Your task to perform on an android device: View the shopping cart on walmart.com. Search for logitech g910 on walmart.com, select the first entry, add it to the cart, then select checkout. Image 0: 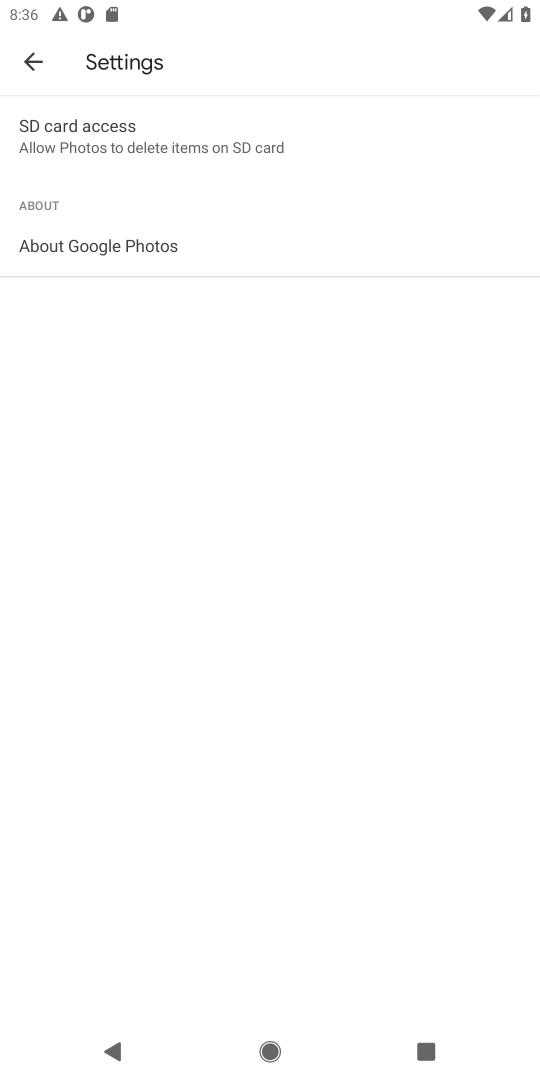
Step 0: press home button
Your task to perform on an android device: View the shopping cart on walmart.com. Search for logitech g910 on walmart.com, select the first entry, add it to the cart, then select checkout. Image 1: 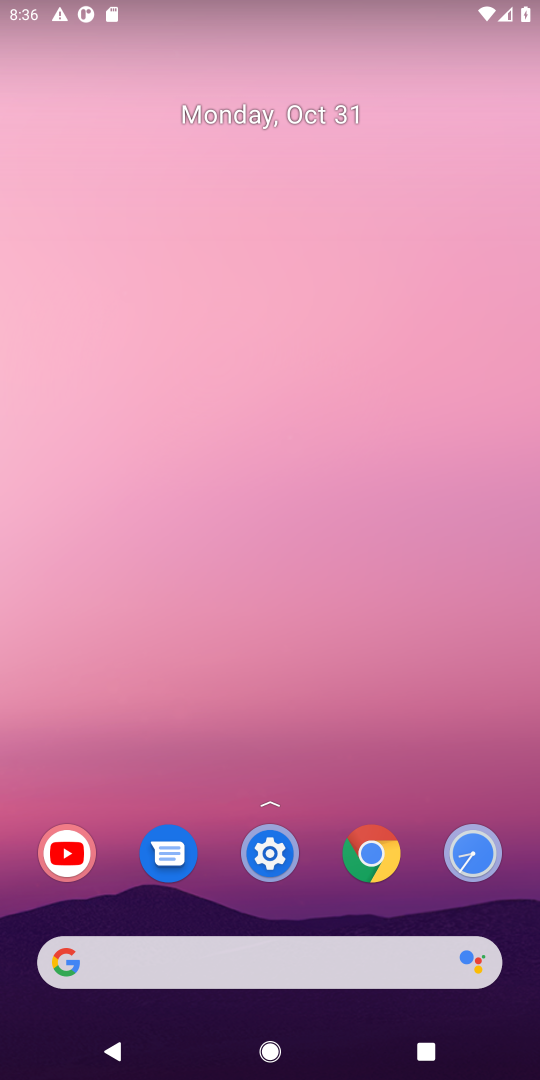
Step 1: click (225, 955)
Your task to perform on an android device: View the shopping cart on walmart.com. Search for logitech g910 on walmart.com, select the first entry, add it to the cart, then select checkout. Image 2: 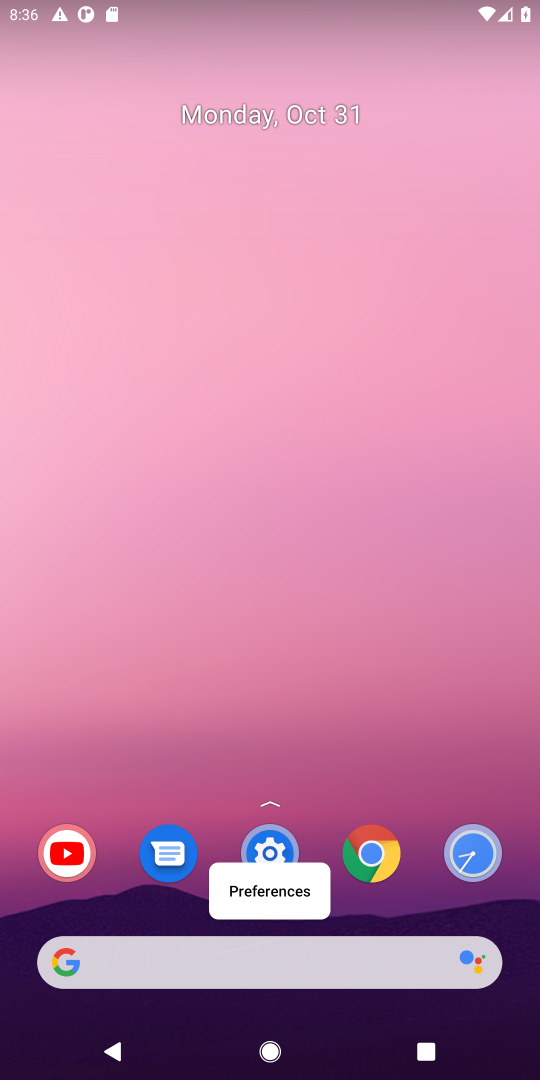
Step 2: click (211, 978)
Your task to perform on an android device: View the shopping cart on walmart.com. Search for logitech g910 on walmart.com, select the first entry, add it to the cart, then select checkout. Image 3: 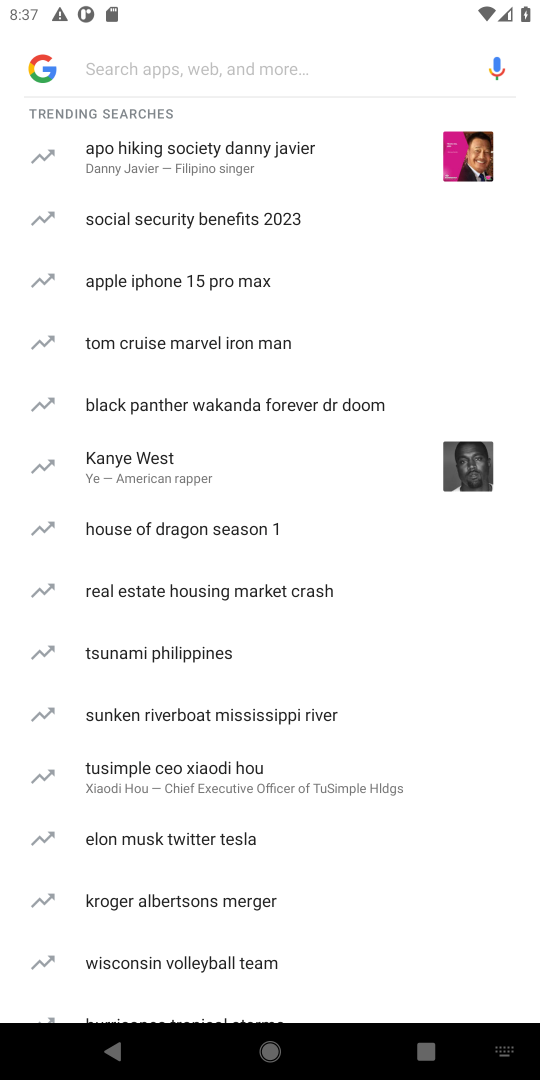
Step 3: type "walmart.com"
Your task to perform on an android device: View the shopping cart on walmart.com. Search for logitech g910 on walmart.com, select the first entry, add it to the cart, then select checkout. Image 4: 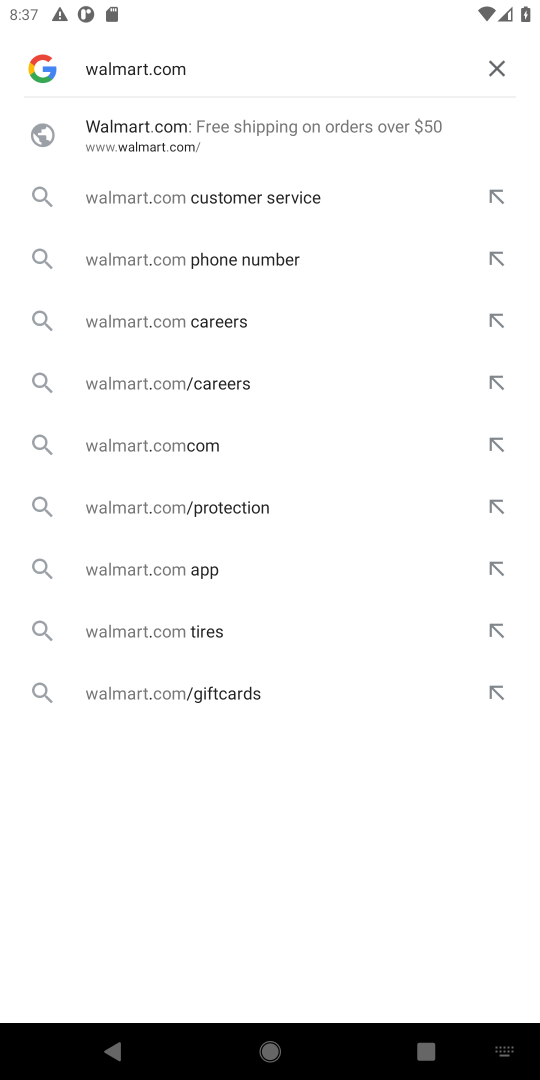
Step 4: click (116, 120)
Your task to perform on an android device: View the shopping cart on walmart.com. Search for logitech g910 on walmart.com, select the first entry, add it to the cart, then select checkout. Image 5: 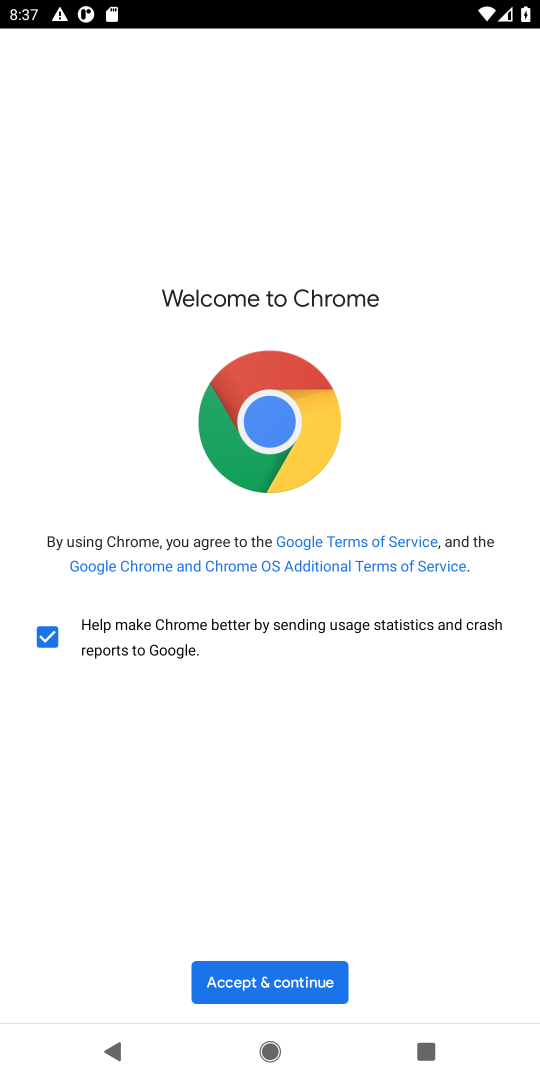
Step 5: click (272, 980)
Your task to perform on an android device: View the shopping cart on walmart.com. Search for logitech g910 on walmart.com, select the first entry, add it to the cart, then select checkout. Image 6: 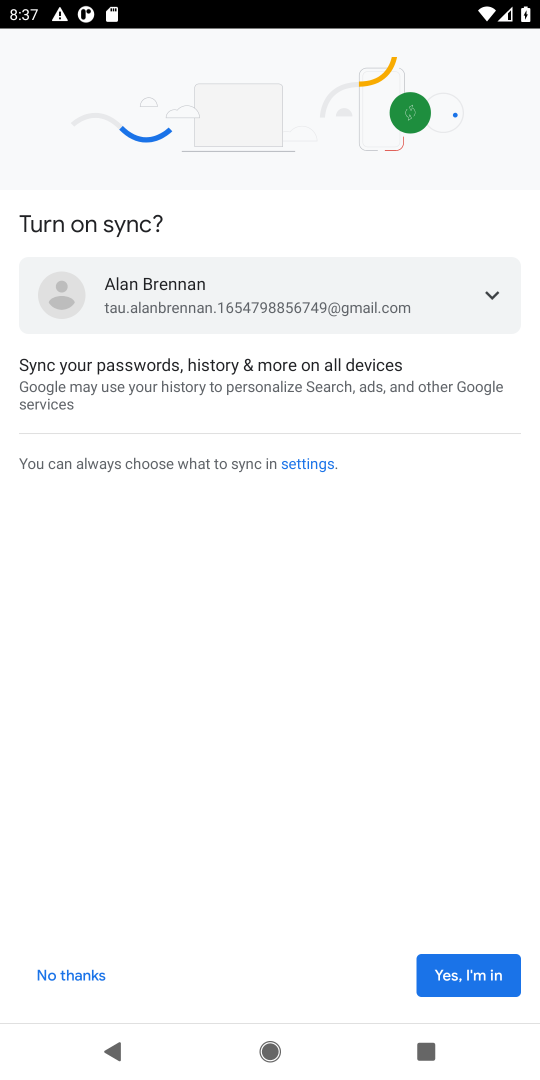
Step 6: click (444, 975)
Your task to perform on an android device: View the shopping cart on walmart.com. Search for logitech g910 on walmart.com, select the first entry, add it to the cart, then select checkout. Image 7: 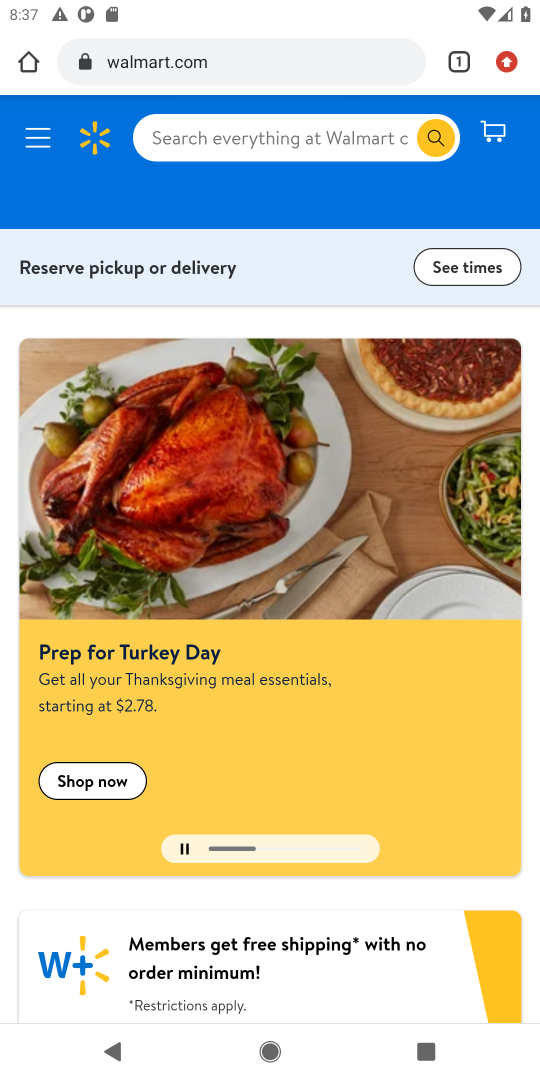
Step 7: click (226, 132)
Your task to perform on an android device: View the shopping cart on walmart.com. Search for logitech g910 on walmart.com, select the first entry, add it to the cart, then select checkout. Image 8: 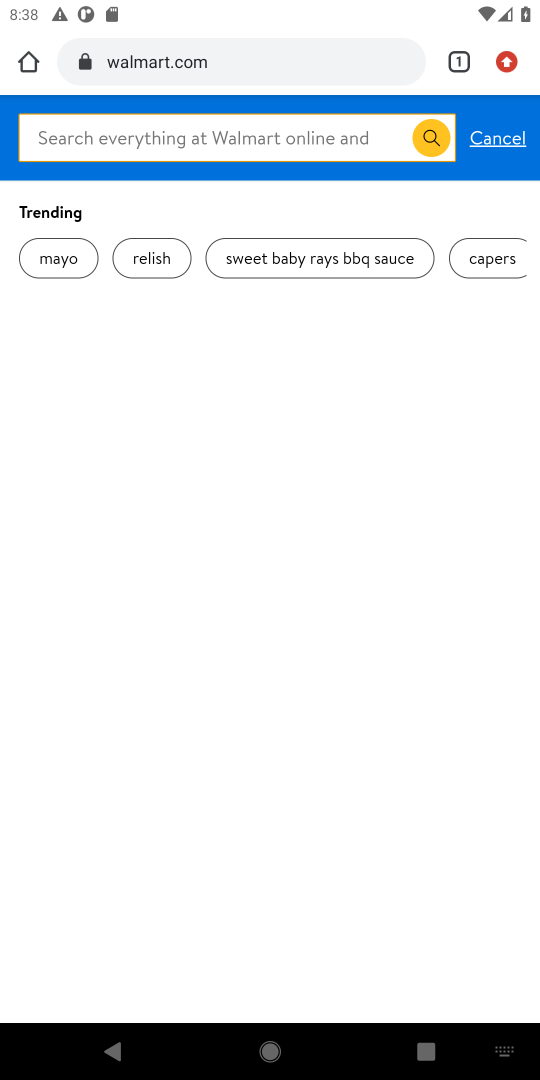
Step 8: type "logitech g910"
Your task to perform on an android device: View the shopping cart on walmart.com. Search for logitech g910 on walmart.com, select the first entry, add it to the cart, then select checkout. Image 9: 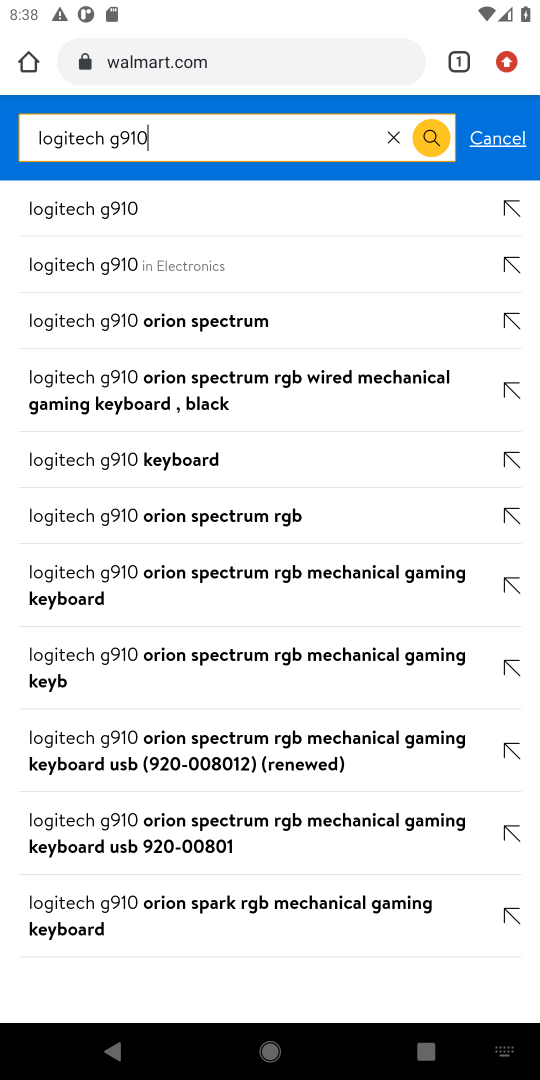
Step 9: click (126, 199)
Your task to perform on an android device: View the shopping cart on walmart.com. Search for logitech g910 on walmart.com, select the first entry, add it to the cart, then select checkout. Image 10: 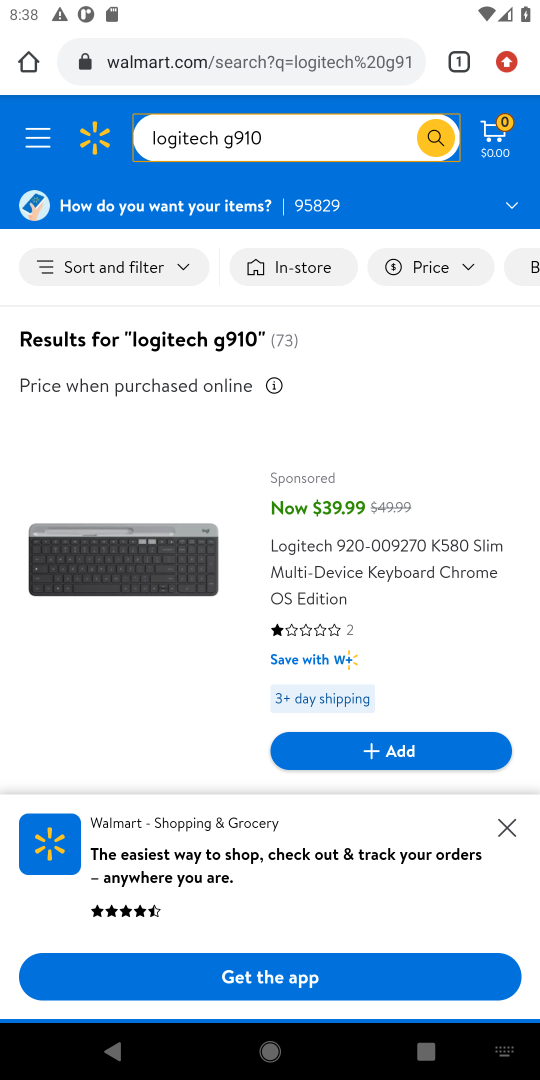
Step 10: click (504, 825)
Your task to perform on an android device: View the shopping cart on walmart.com. Search for logitech g910 on walmart.com, select the first entry, add it to the cart, then select checkout. Image 11: 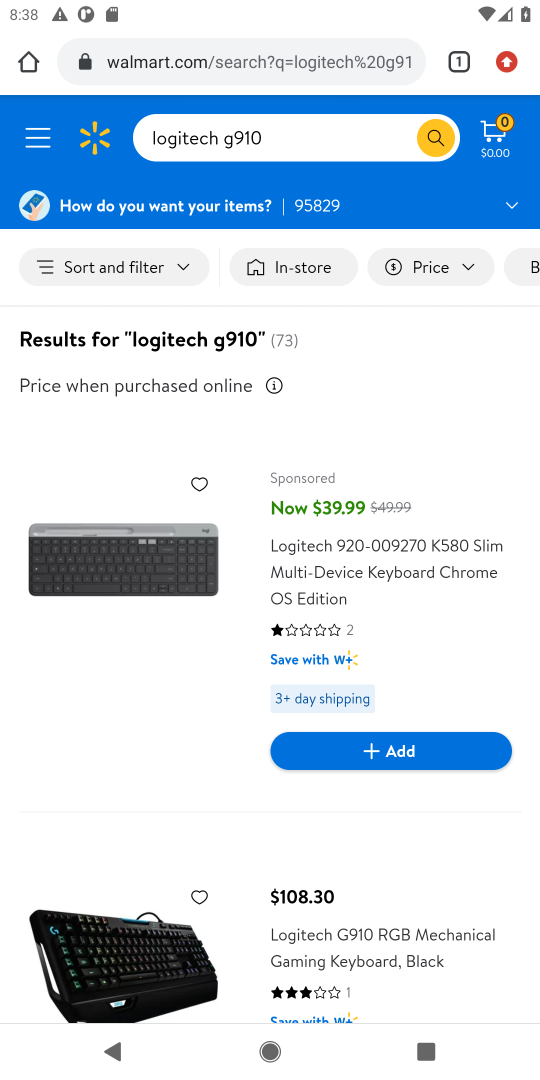
Step 11: click (411, 748)
Your task to perform on an android device: View the shopping cart on walmart.com. Search for logitech g910 on walmart.com, select the first entry, add it to the cart, then select checkout. Image 12: 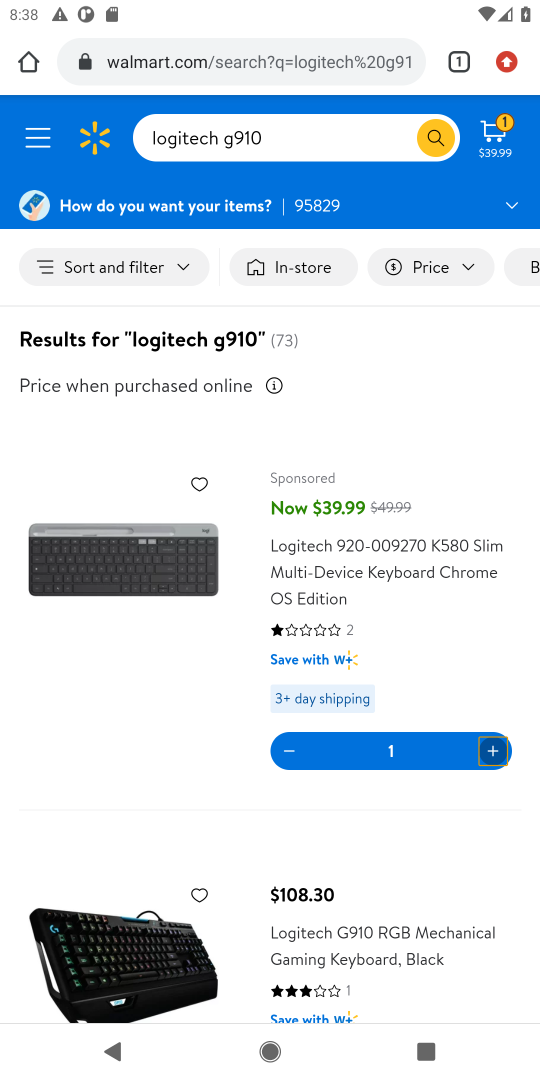
Step 12: click (491, 133)
Your task to perform on an android device: View the shopping cart on walmart.com. Search for logitech g910 on walmart.com, select the first entry, add it to the cart, then select checkout. Image 13: 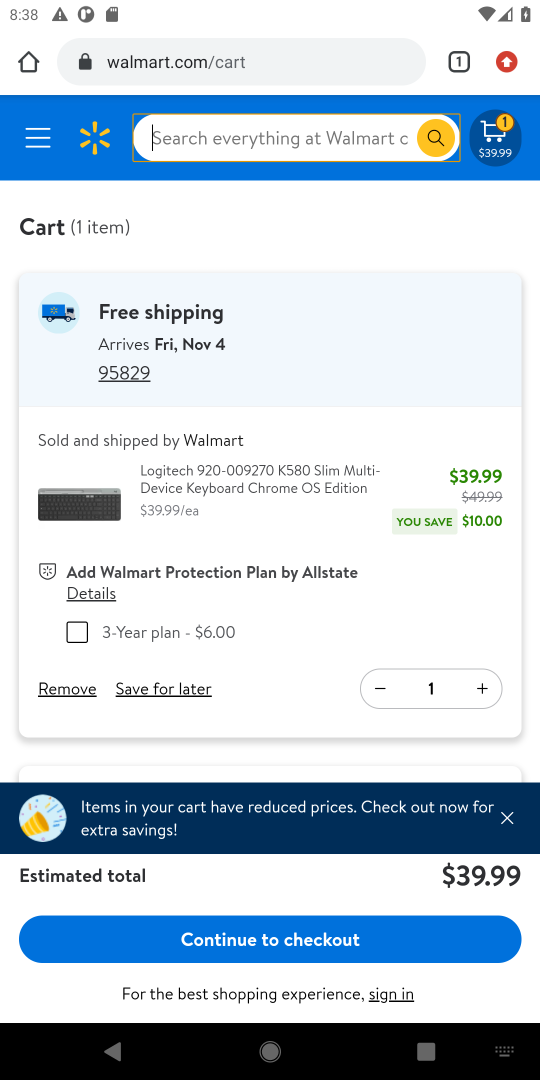
Step 13: click (274, 946)
Your task to perform on an android device: View the shopping cart on walmart.com. Search for logitech g910 on walmart.com, select the first entry, add it to the cart, then select checkout. Image 14: 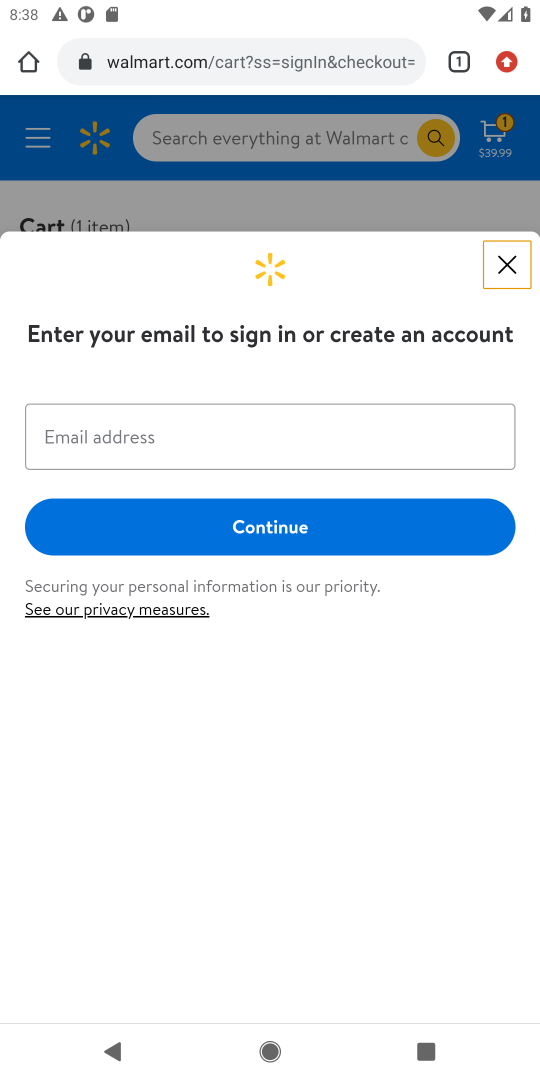
Step 14: task complete